Your task to perform on an android device: turn on improve location accuracy Image 0: 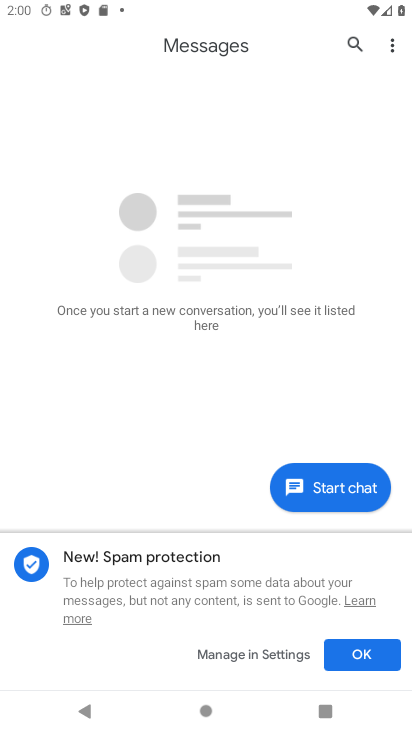
Step 0: press home button
Your task to perform on an android device: turn on improve location accuracy Image 1: 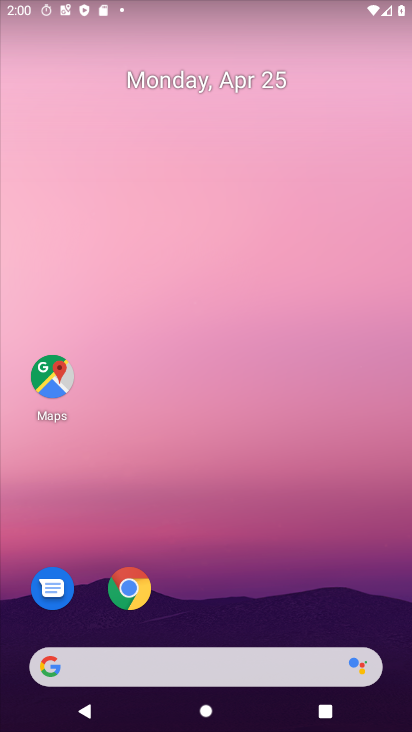
Step 1: drag from (342, 592) to (315, 222)
Your task to perform on an android device: turn on improve location accuracy Image 2: 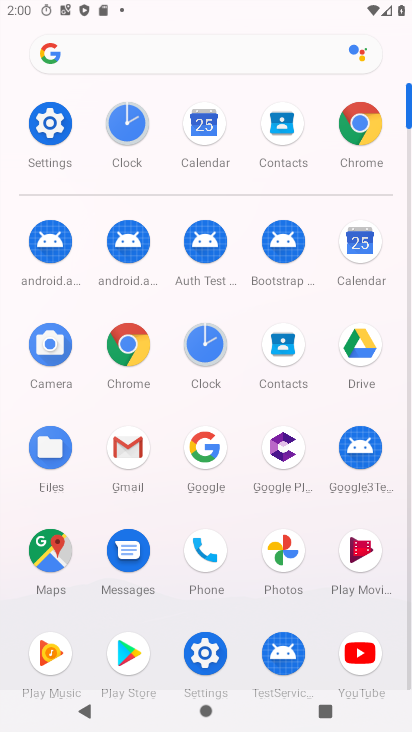
Step 2: click (52, 142)
Your task to perform on an android device: turn on improve location accuracy Image 3: 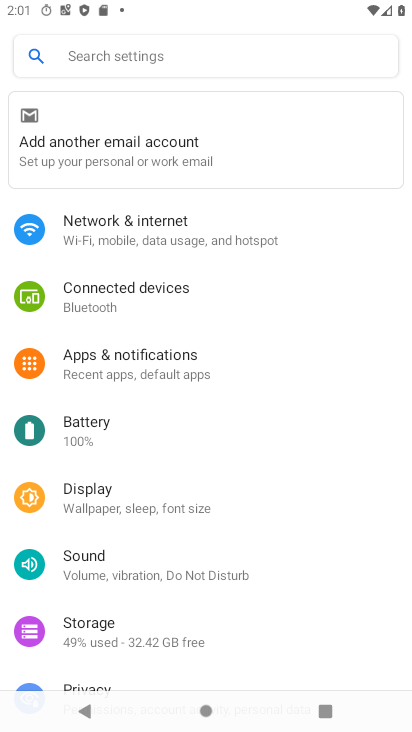
Step 3: drag from (144, 584) to (201, 198)
Your task to perform on an android device: turn on improve location accuracy Image 4: 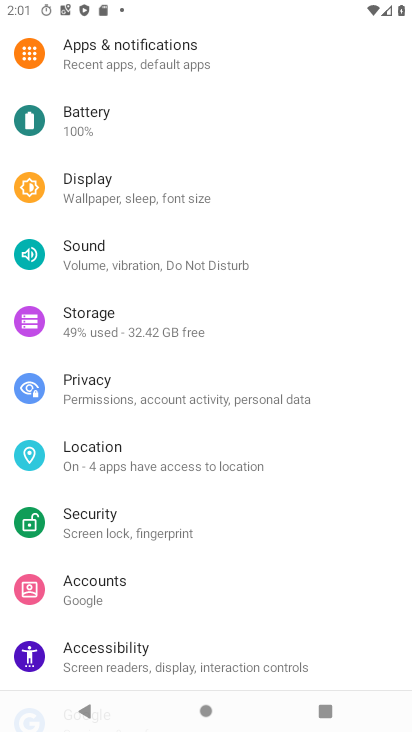
Step 4: click (155, 470)
Your task to perform on an android device: turn on improve location accuracy Image 5: 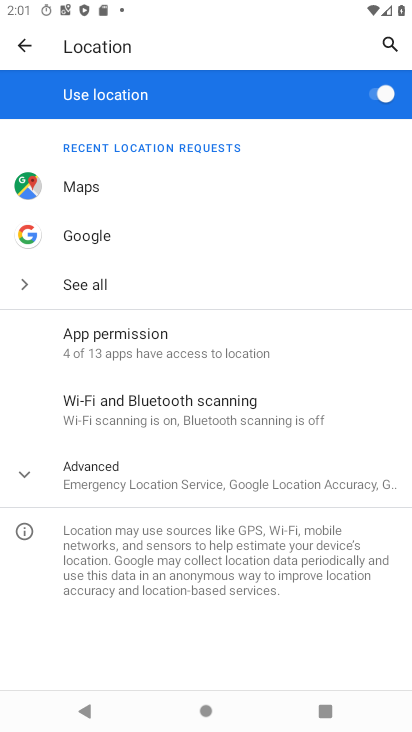
Step 5: click (124, 466)
Your task to perform on an android device: turn on improve location accuracy Image 6: 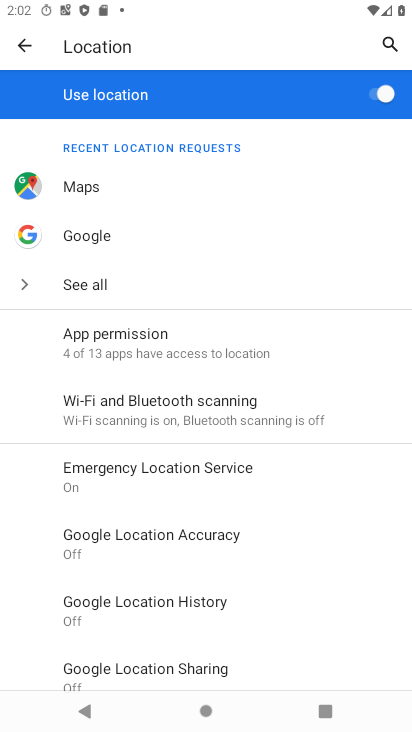
Step 6: click (234, 538)
Your task to perform on an android device: turn on improve location accuracy Image 7: 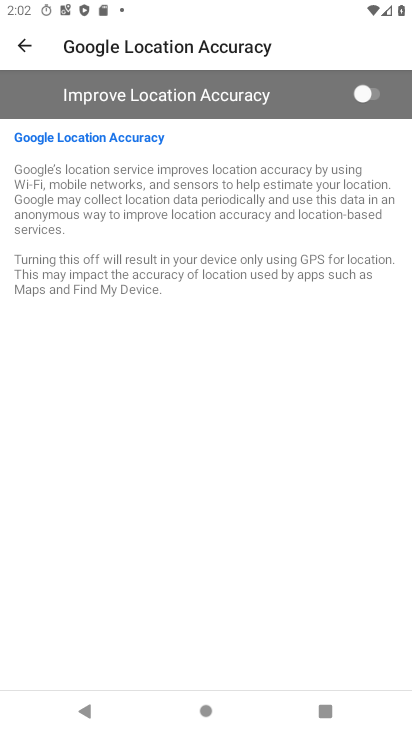
Step 7: click (363, 97)
Your task to perform on an android device: turn on improve location accuracy Image 8: 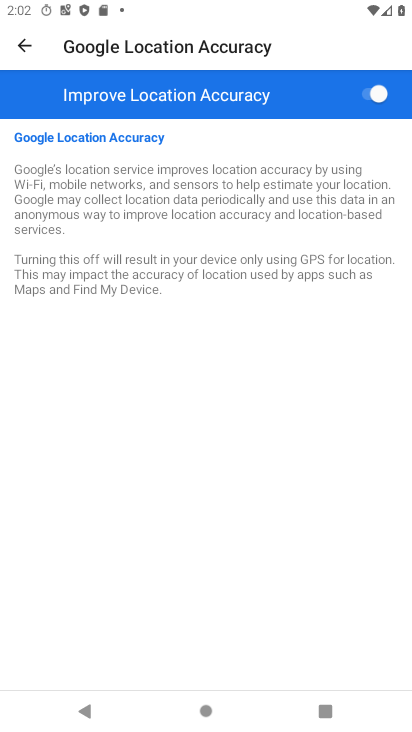
Step 8: task complete